Your task to perform on an android device: change the clock display to digital Image 0: 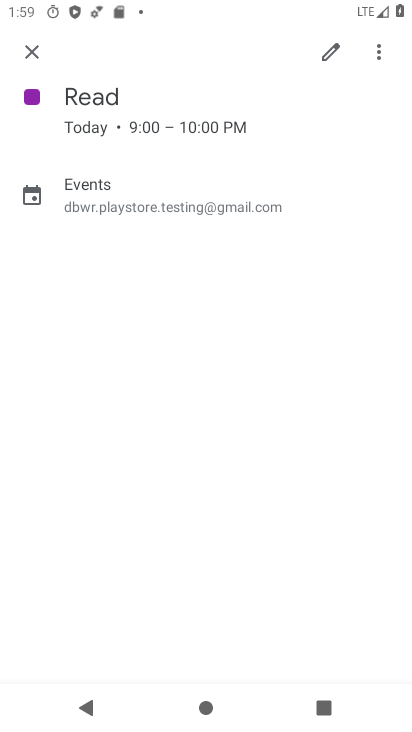
Step 0: press home button
Your task to perform on an android device: change the clock display to digital Image 1: 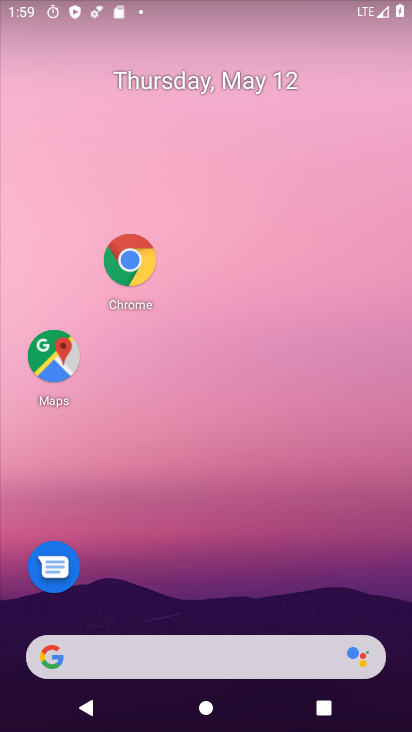
Step 1: drag from (186, 641) to (195, 225)
Your task to perform on an android device: change the clock display to digital Image 2: 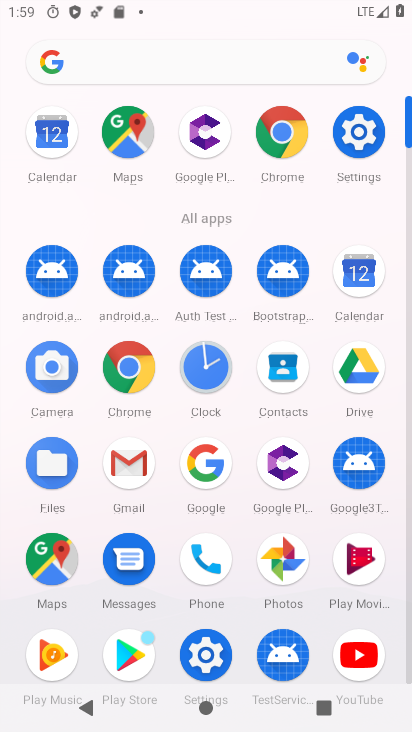
Step 2: click (202, 372)
Your task to perform on an android device: change the clock display to digital Image 3: 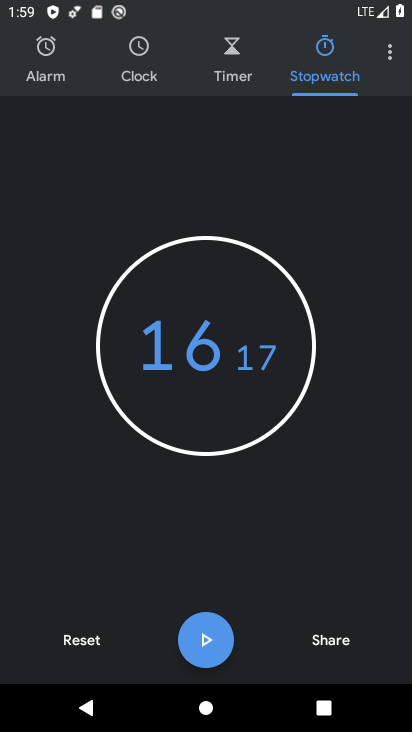
Step 3: click (390, 55)
Your task to perform on an android device: change the clock display to digital Image 4: 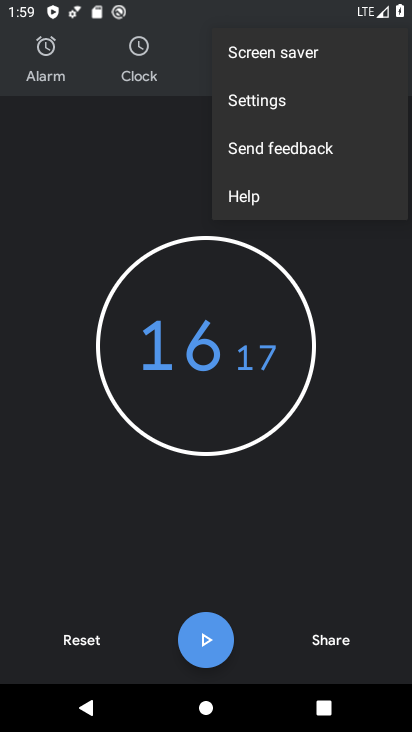
Step 4: click (268, 102)
Your task to perform on an android device: change the clock display to digital Image 5: 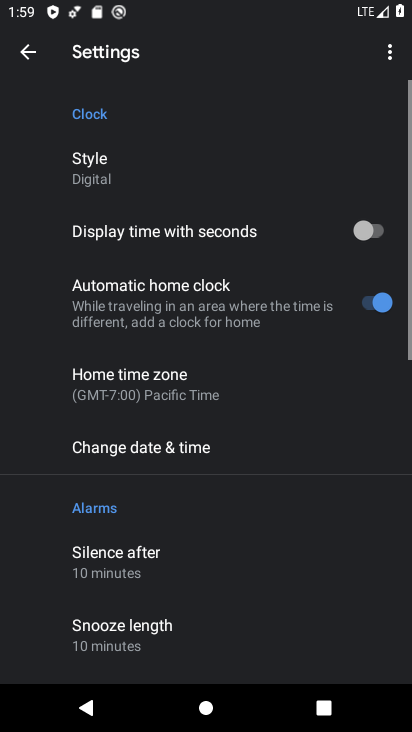
Step 5: click (91, 178)
Your task to perform on an android device: change the clock display to digital Image 6: 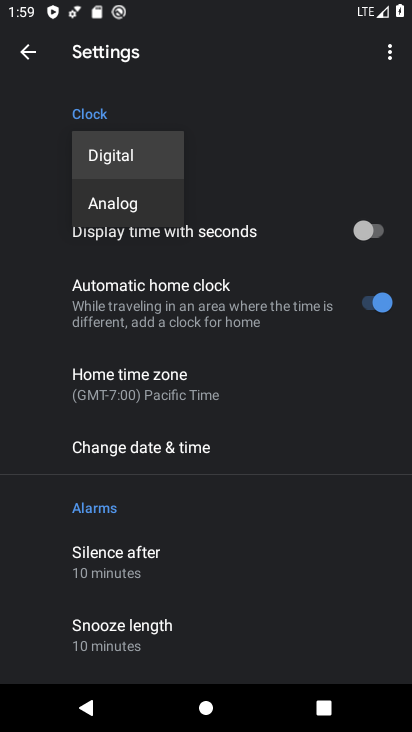
Step 6: click (106, 147)
Your task to perform on an android device: change the clock display to digital Image 7: 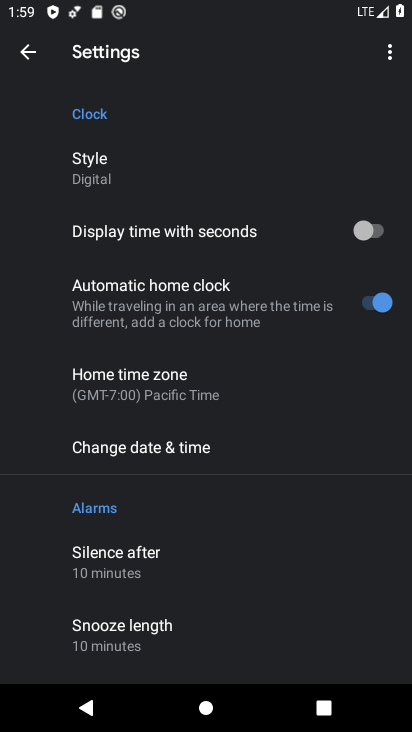
Step 7: task complete